Your task to perform on an android device: Open my contact list Image 0: 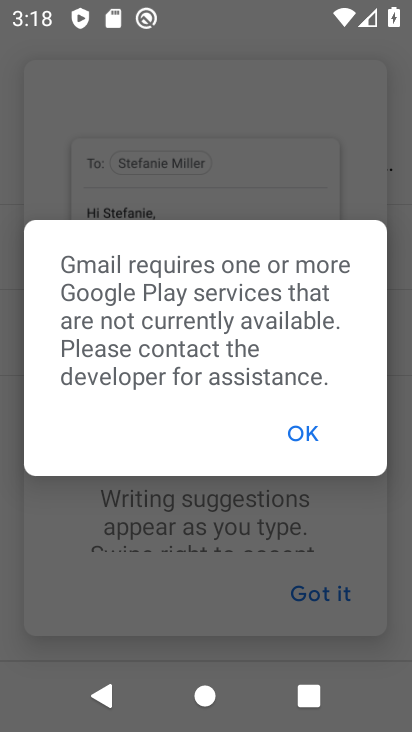
Step 0: press home button
Your task to perform on an android device: Open my contact list Image 1: 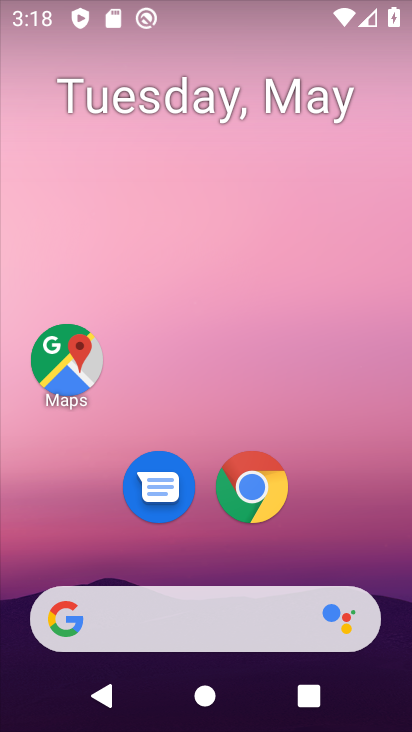
Step 1: drag from (206, 551) to (244, 152)
Your task to perform on an android device: Open my contact list Image 2: 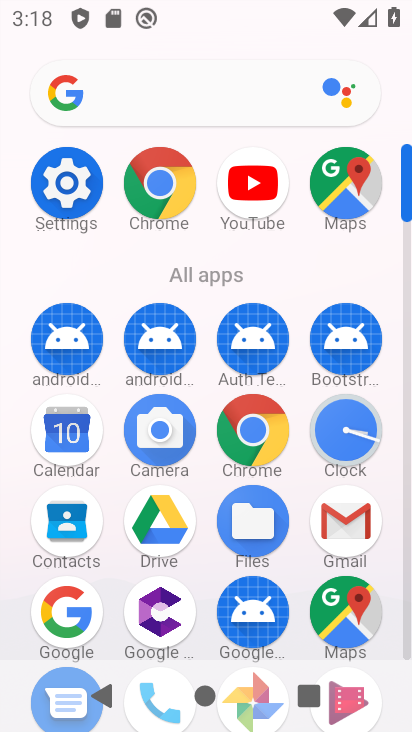
Step 2: click (64, 517)
Your task to perform on an android device: Open my contact list Image 3: 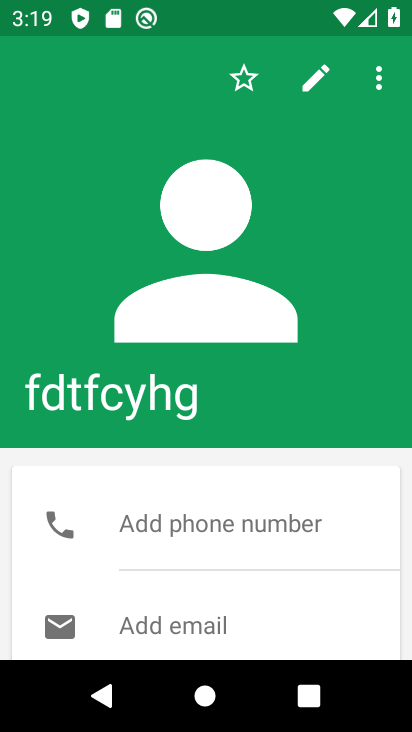
Step 3: task complete